Your task to perform on an android device: find photos in the google photos app Image 0: 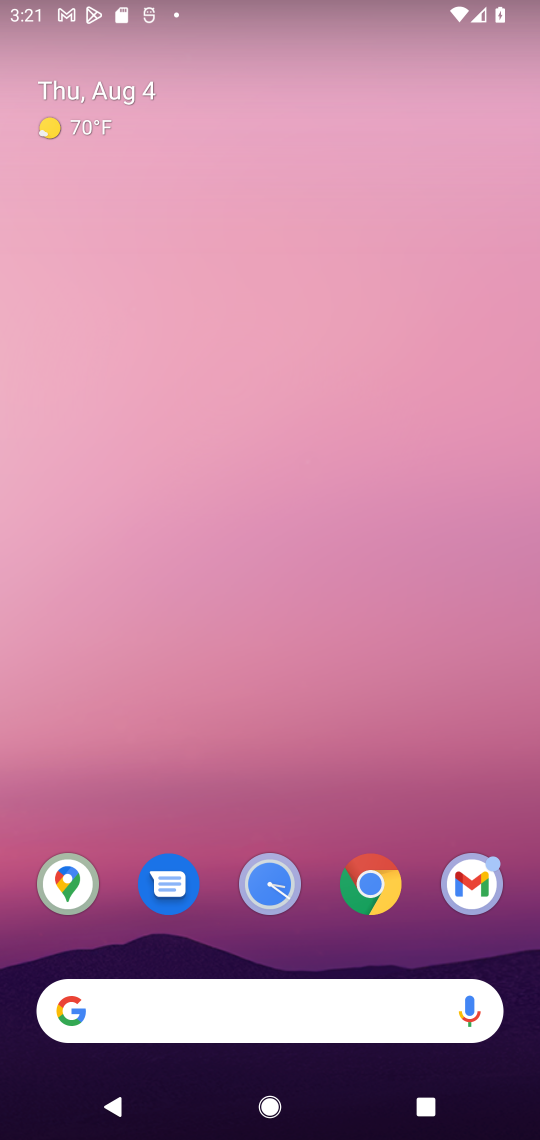
Step 0: drag from (330, 942) to (290, 90)
Your task to perform on an android device: find photos in the google photos app Image 1: 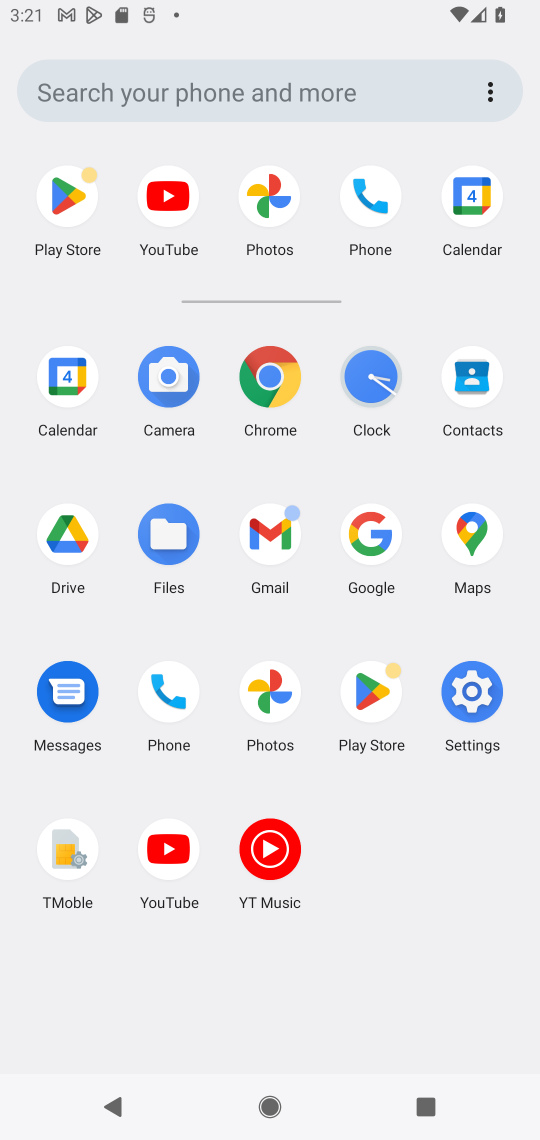
Step 1: click (282, 176)
Your task to perform on an android device: find photos in the google photos app Image 2: 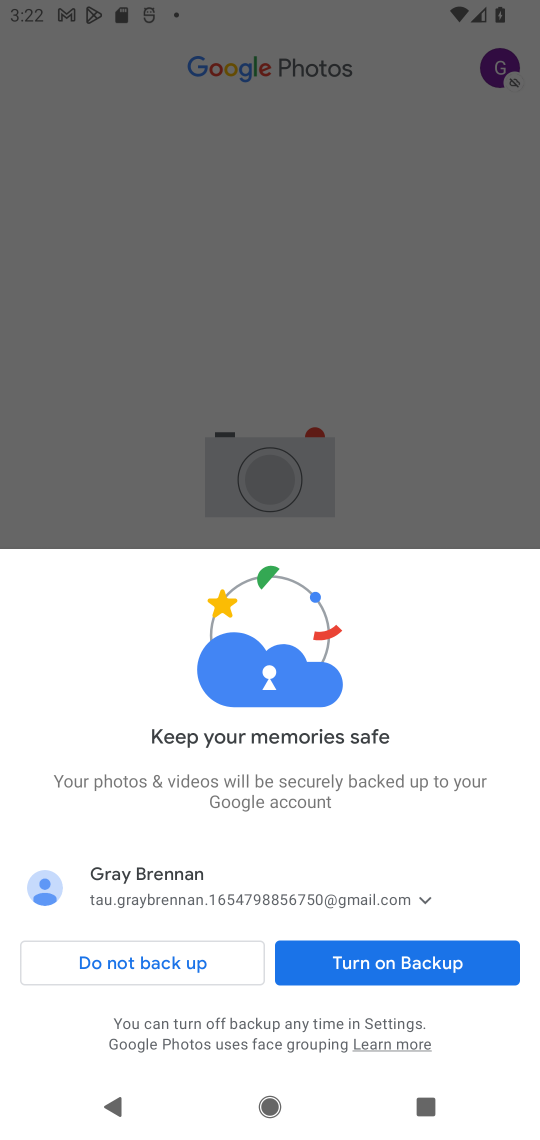
Step 2: task complete